Your task to perform on an android device: Clear the cart on walmart.com. Add apple airpods to the cart on walmart.com, then select checkout. Image 0: 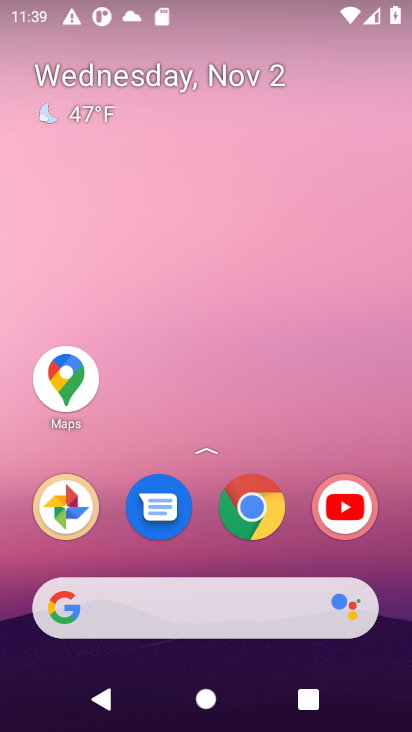
Step 0: click (205, 622)
Your task to perform on an android device: Clear the cart on walmart.com. Add apple airpods to the cart on walmart.com, then select checkout. Image 1: 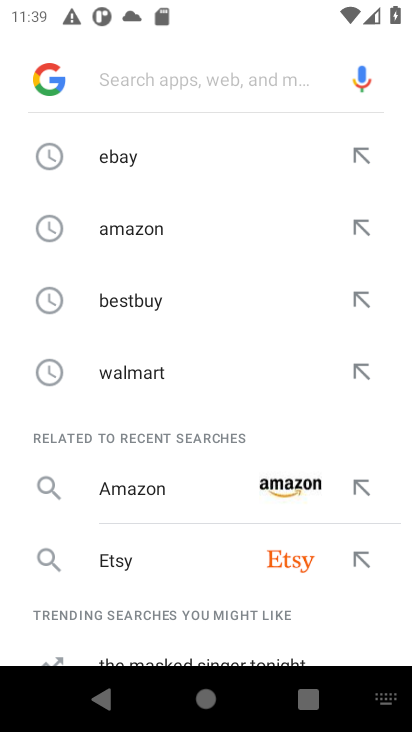
Step 1: click (149, 366)
Your task to perform on an android device: Clear the cart on walmart.com. Add apple airpods to the cart on walmart.com, then select checkout. Image 2: 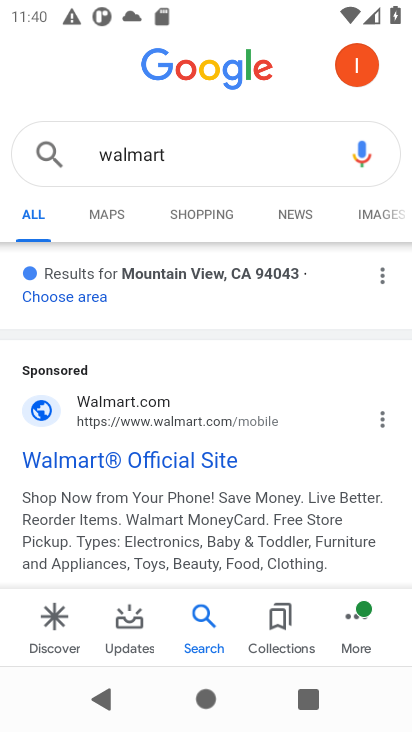
Step 2: click (82, 451)
Your task to perform on an android device: Clear the cart on walmart.com. Add apple airpods to the cart on walmart.com, then select checkout. Image 3: 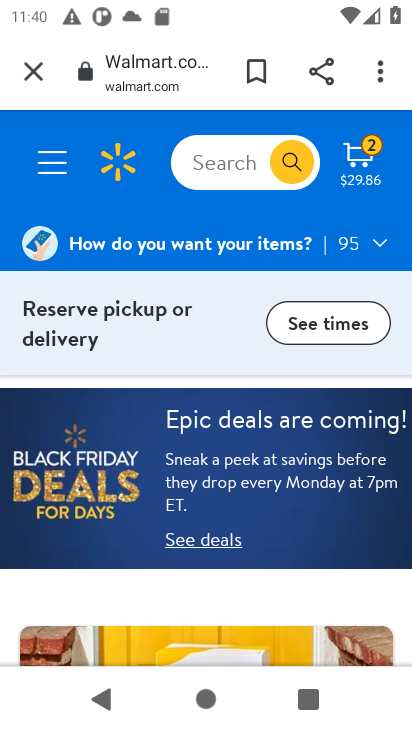
Step 3: task complete